Your task to perform on an android device: visit the assistant section in the google photos Image 0: 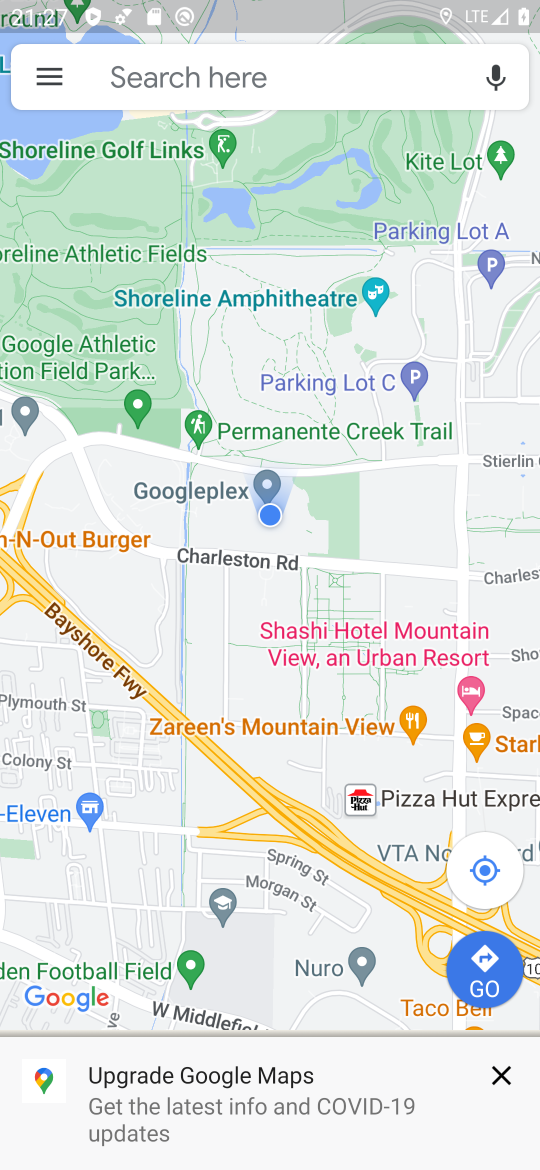
Step 0: press home button
Your task to perform on an android device: visit the assistant section in the google photos Image 1: 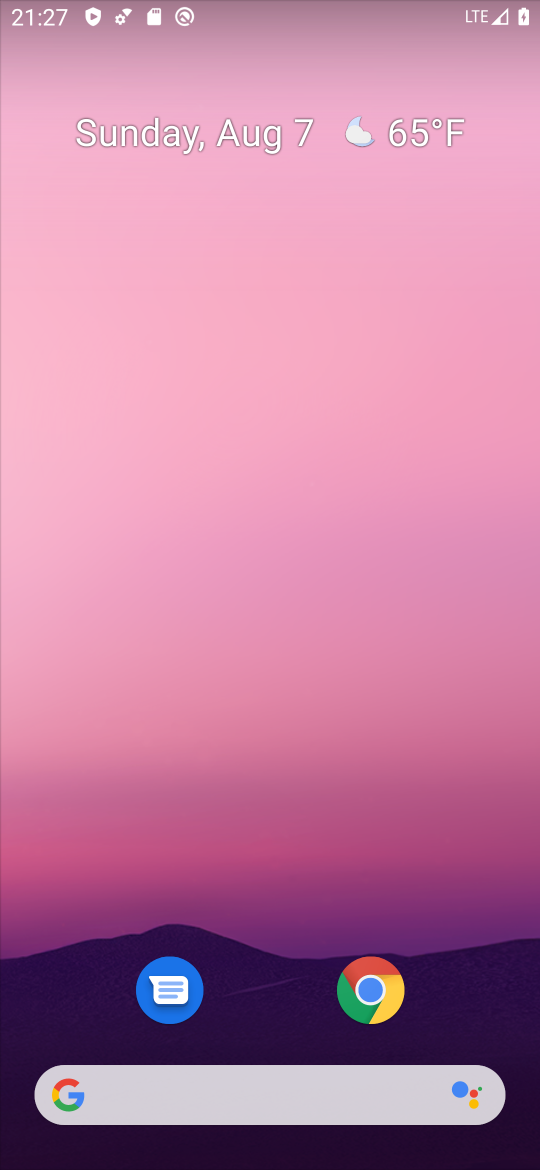
Step 1: drag from (286, 920) to (202, 0)
Your task to perform on an android device: visit the assistant section in the google photos Image 2: 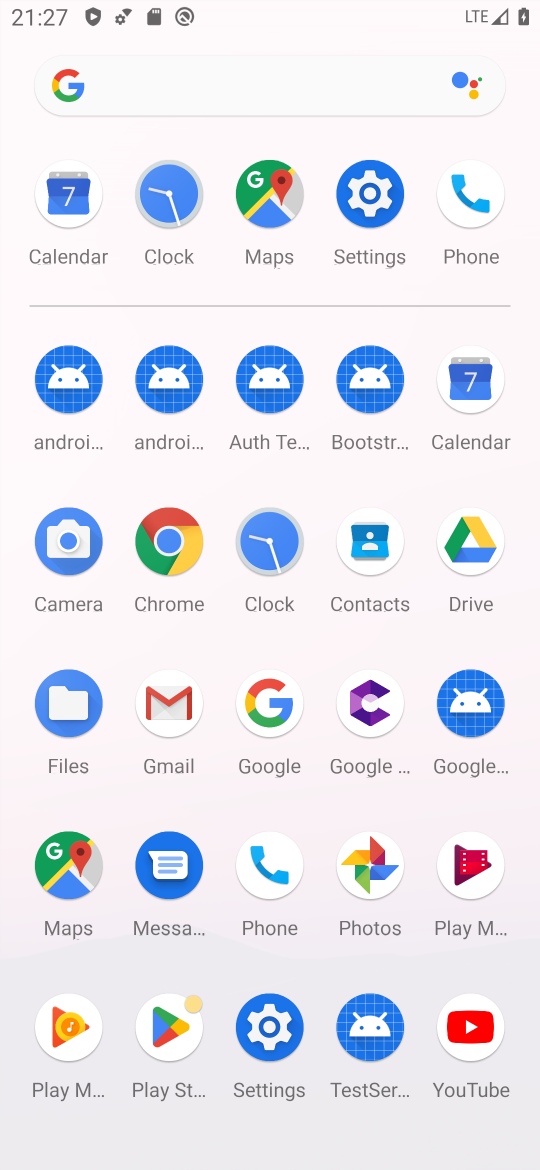
Step 2: click (374, 858)
Your task to perform on an android device: visit the assistant section in the google photos Image 3: 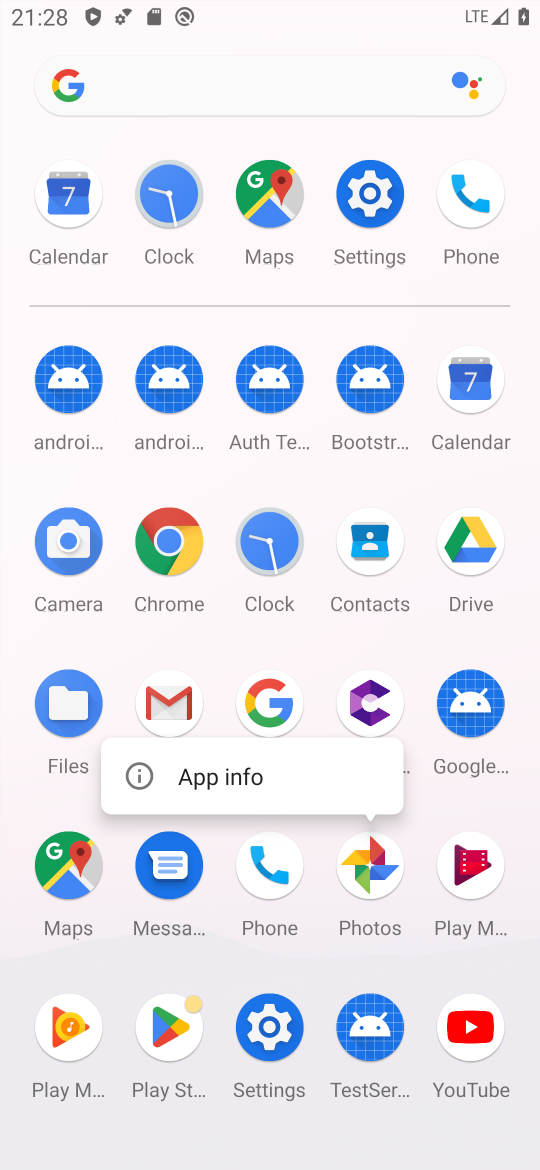
Step 3: click (374, 862)
Your task to perform on an android device: visit the assistant section in the google photos Image 4: 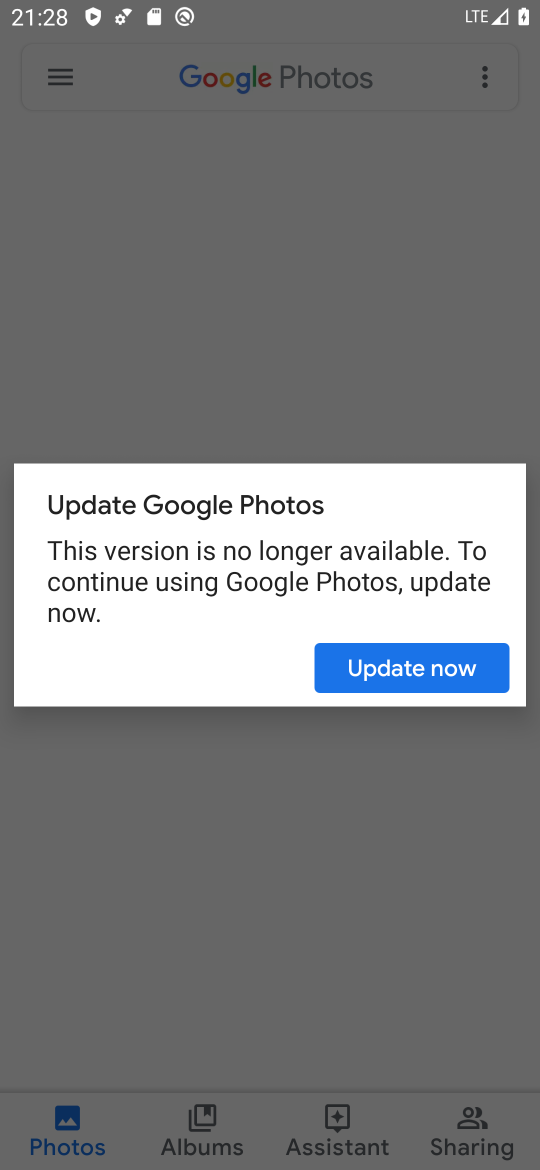
Step 4: click (420, 667)
Your task to perform on an android device: visit the assistant section in the google photos Image 5: 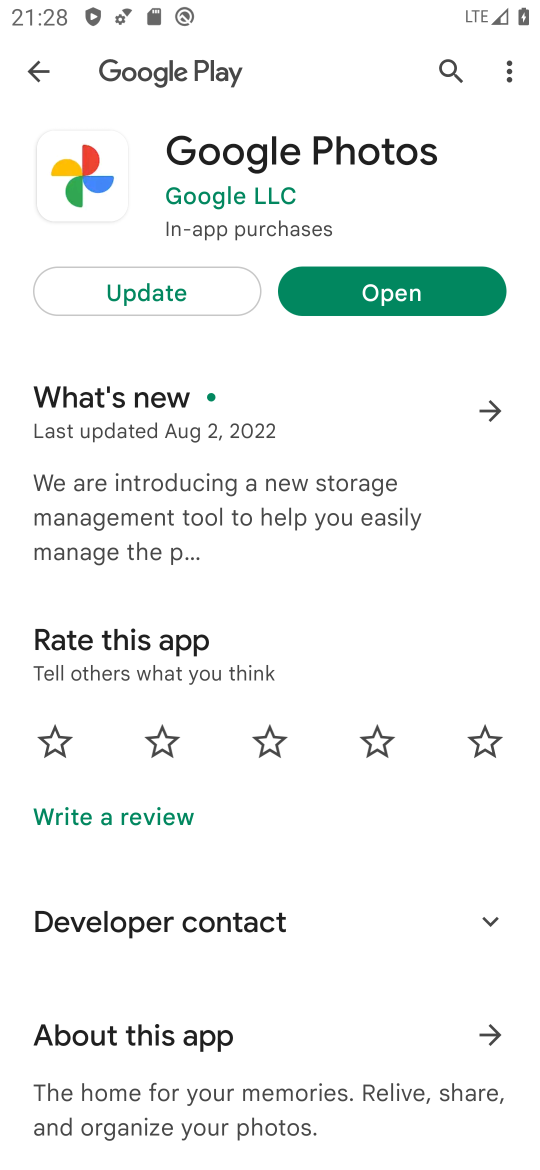
Step 5: click (417, 287)
Your task to perform on an android device: visit the assistant section in the google photos Image 6: 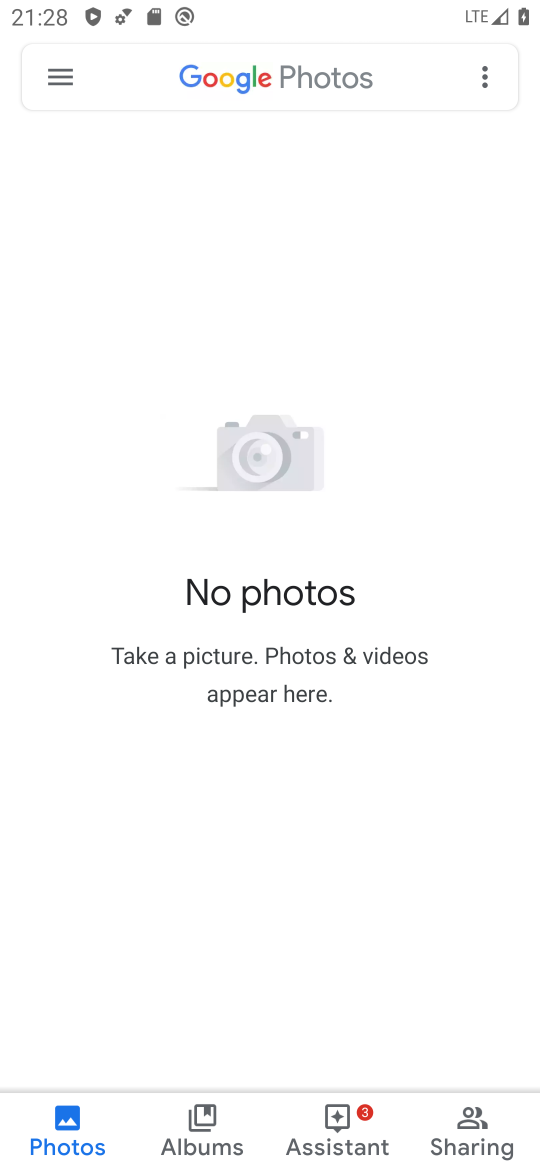
Step 6: click (345, 1124)
Your task to perform on an android device: visit the assistant section in the google photos Image 7: 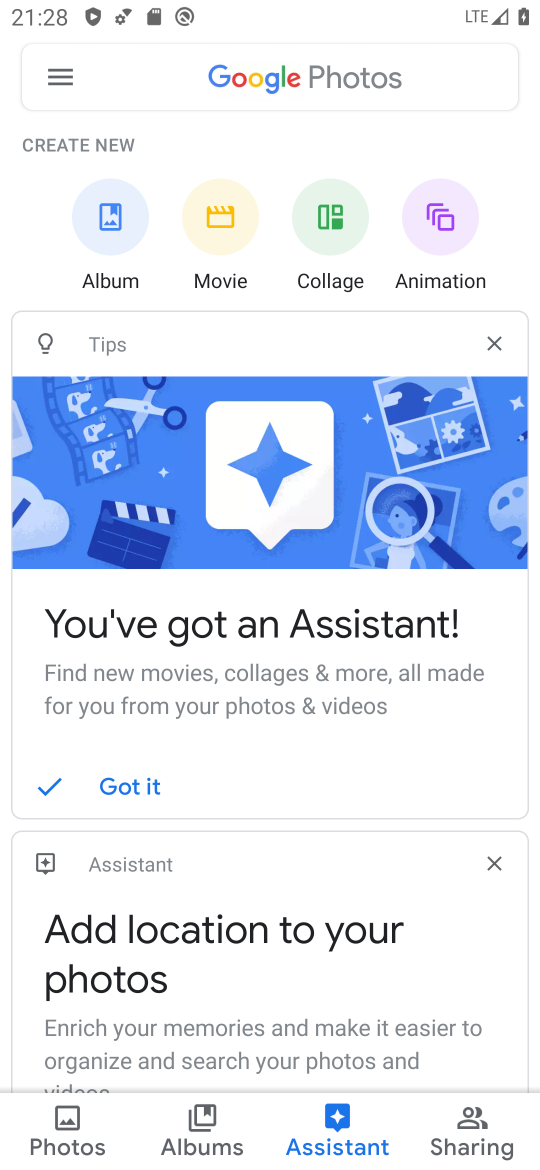
Step 7: task complete